Your task to perform on an android device: install app "DoorDash - Dasher" Image 0: 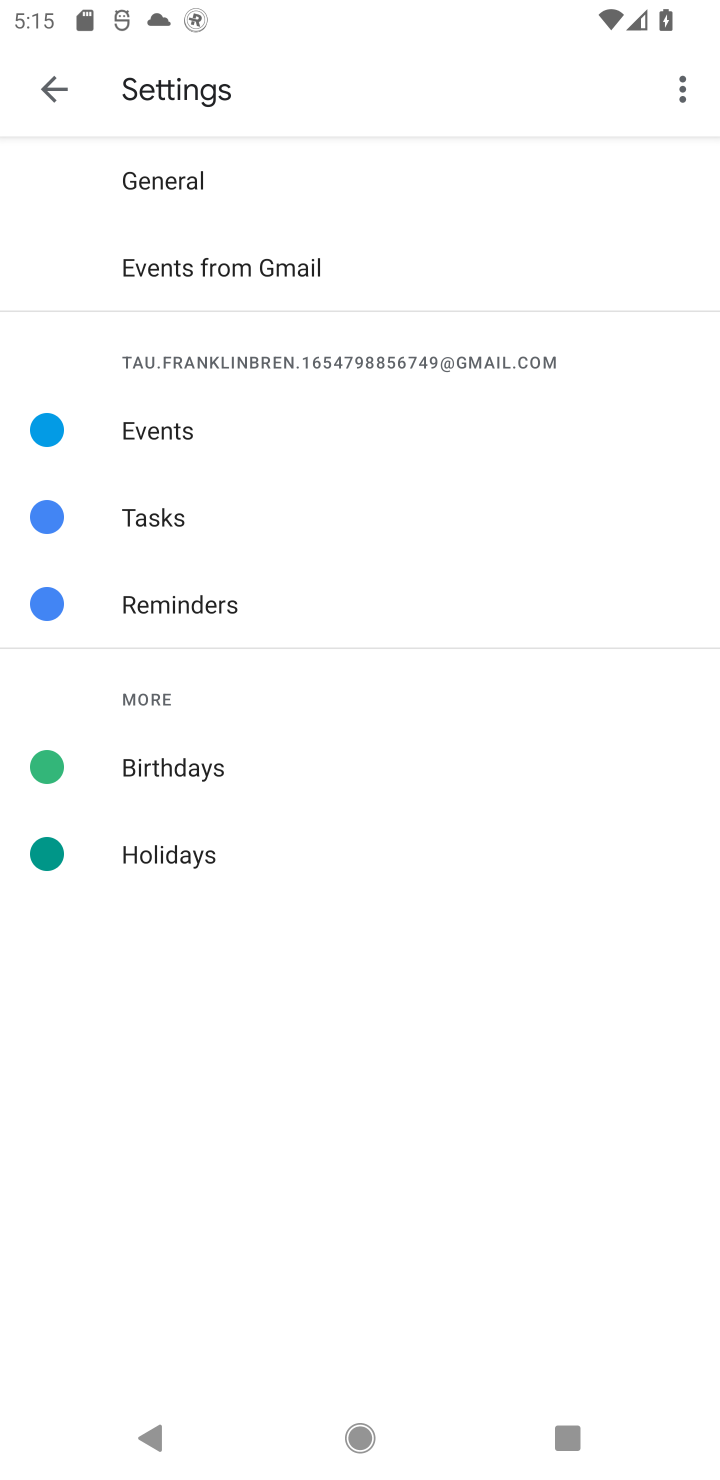
Step 0: press home button
Your task to perform on an android device: install app "DoorDash - Dasher" Image 1: 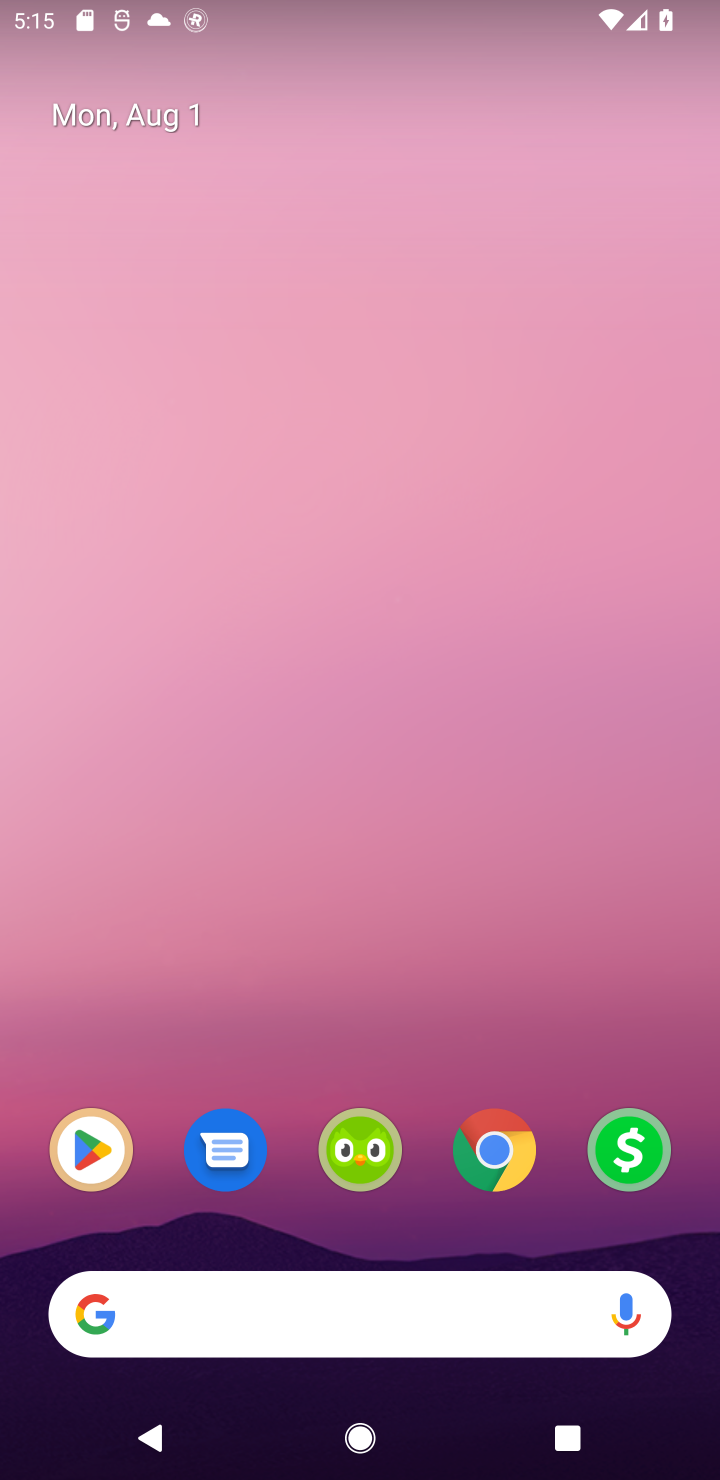
Step 1: click (382, 1149)
Your task to perform on an android device: install app "DoorDash - Dasher" Image 2: 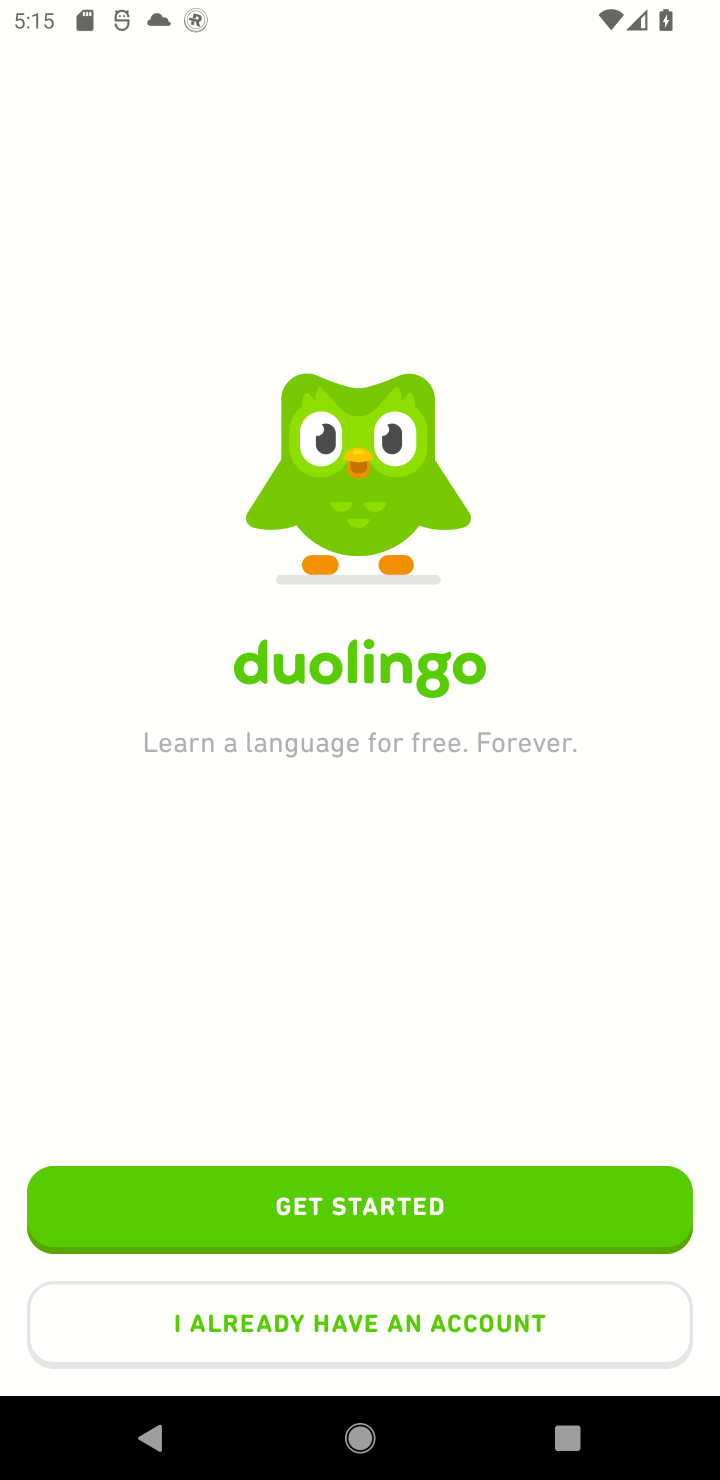
Step 2: task complete